Your task to perform on an android device: Find coffee shops on Maps Image 0: 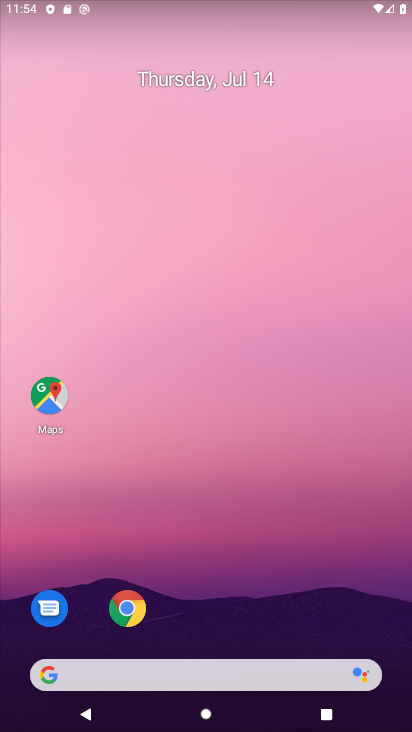
Step 0: drag from (202, 599) to (197, 174)
Your task to perform on an android device: Find coffee shops on Maps Image 1: 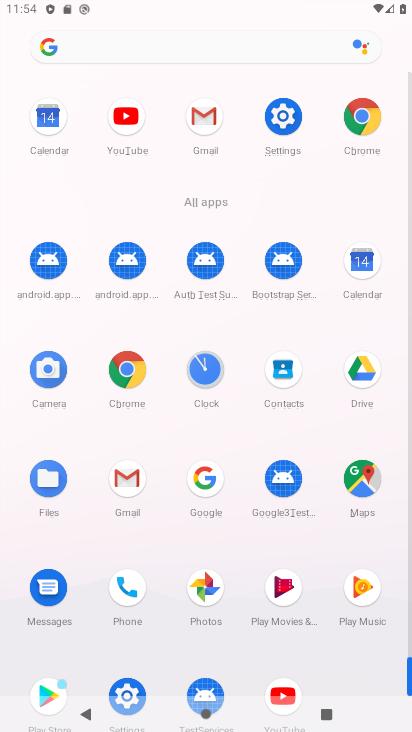
Step 1: click (362, 511)
Your task to perform on an android device: Find coffee shops on Maps Image 2: 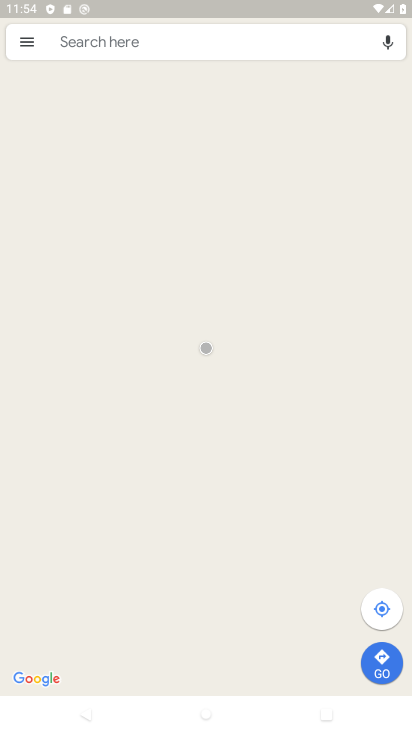
Step 2: click (186, 35)
Your task to perform on an android device: Find coffee shops on Maps Image 3: 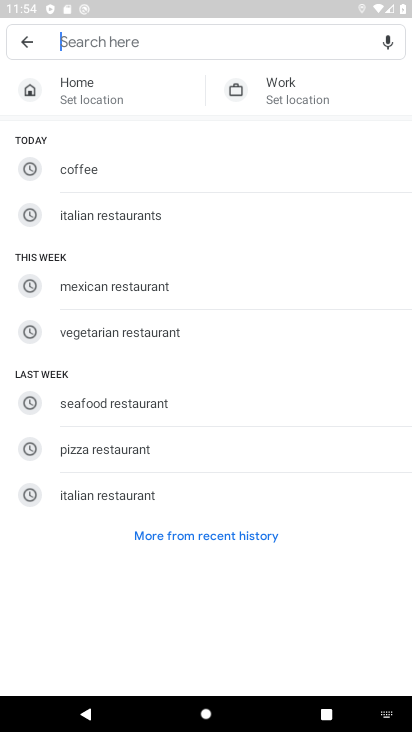
Step 3: type "coffee shops"
Your task to perform on an android device: Find coffee shops on Maps Image 4: 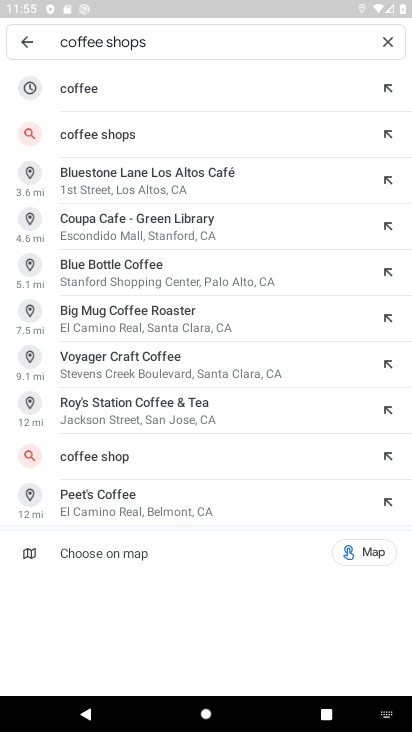
Step 4: click (110, 132)
Your task to perform on an android device: Find coffee shops on Maps Image 5: 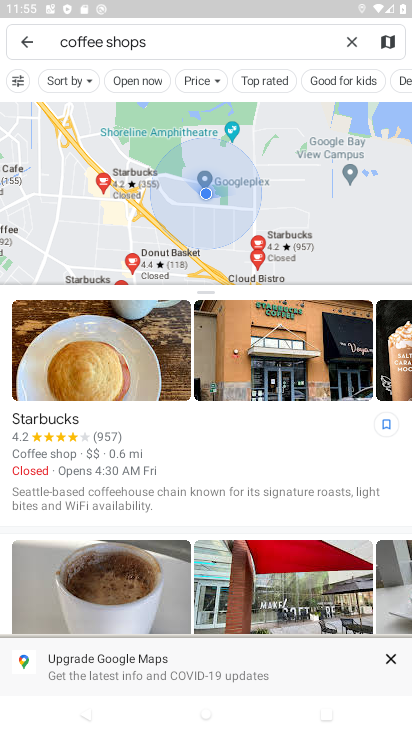
Step 5: task complete